Your task to perform on an android device: Open Chrome and go to the settings page Image 0: 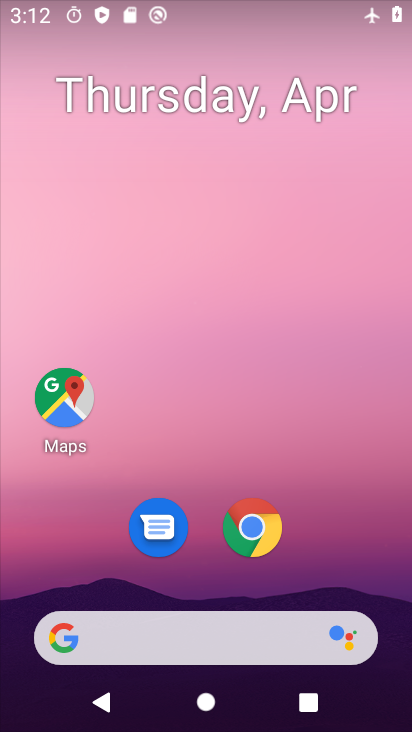
Step 0: click (260, 538)
Your task to perform on an android device: Open Chrome and go to the settings page Image 1: 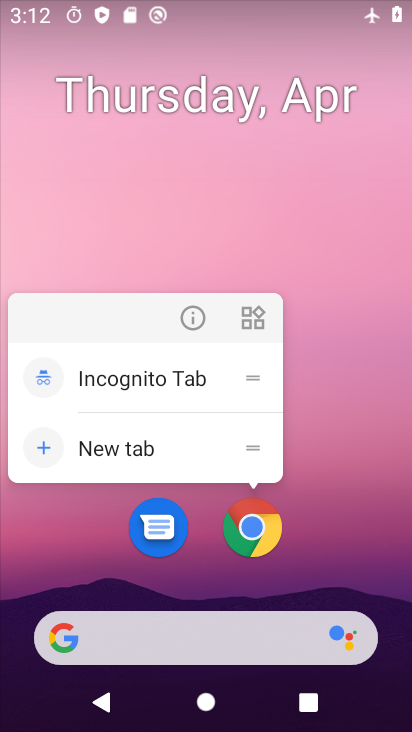
Step 1: click (258, 529)
Your task to perform on an android device: Open Chrome and go to the settings page Image 2: 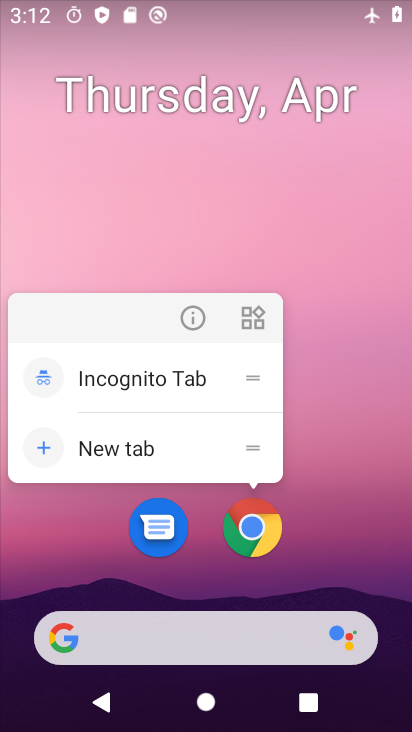
Step 2: drag from (344, 507) to (339, 32)
Your task to perform on an android device: Open Chrome and go to the settings page Image 3: 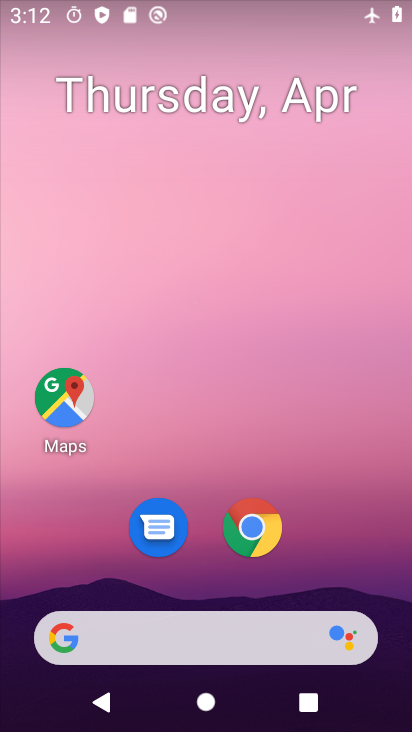
Step 3: drag from (324, 560) to (328, 197)
Your task to perform on an android device: Open Chrome and go to the settings page Image 4: 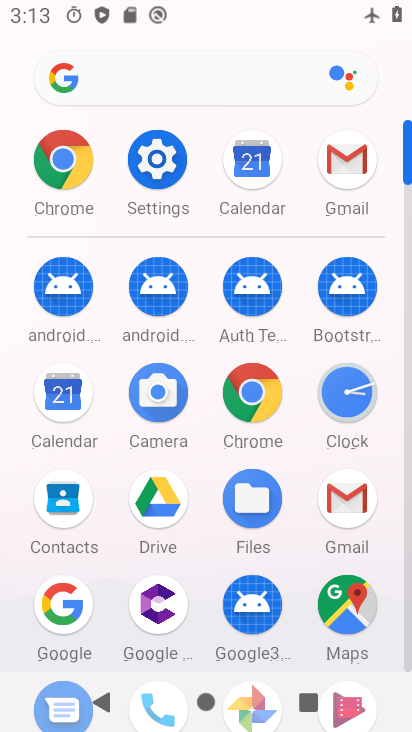
Step 4: click (253, 402)
Your task to perform on an android device: Open Chrome and go to the settings page Image 5: 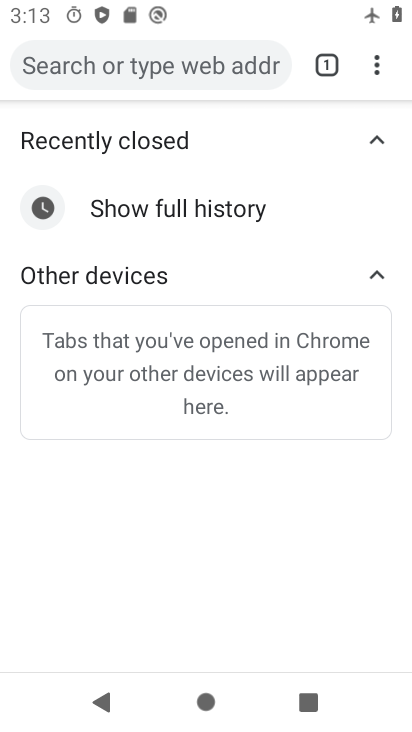
Step 5: click (376, 64)
Your task to perform on an android device: Open Chrome and go to the settings page Image 6: 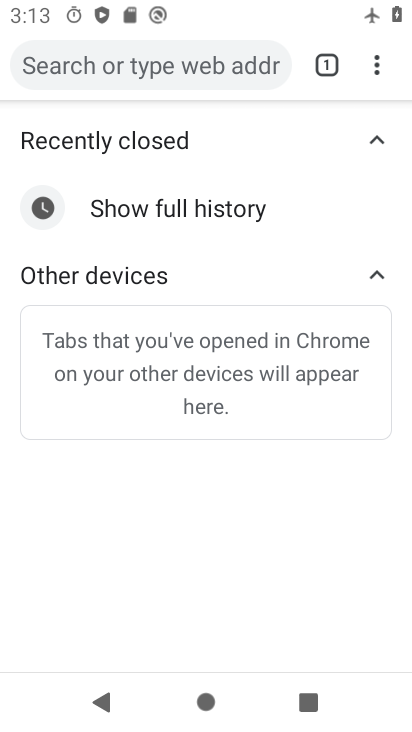
Step 6: task complete